Your task to perform on an android device: What's the weather? Image 0: 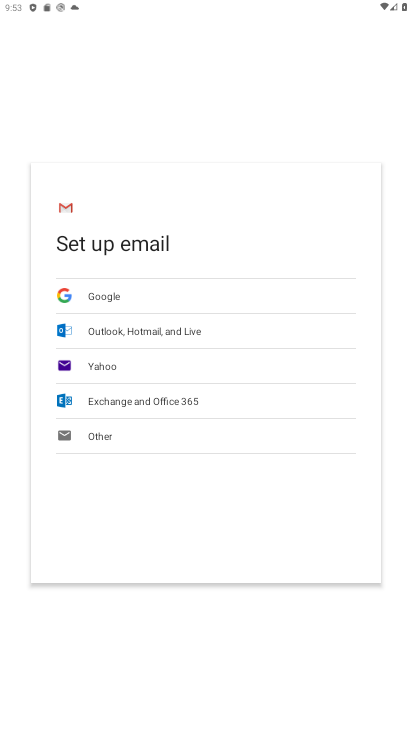
Step 0: task complete